Your task to perform on an android device: empty trash in google photos Image 0: 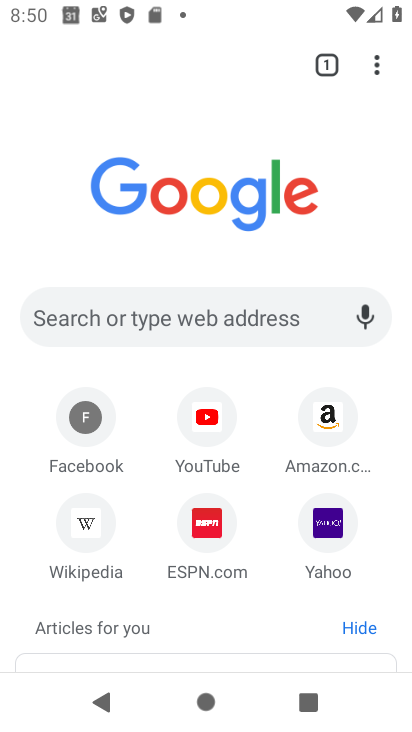
Step 0: press home button
Your task to perform on an android device: empty trash in google photos Image 1: 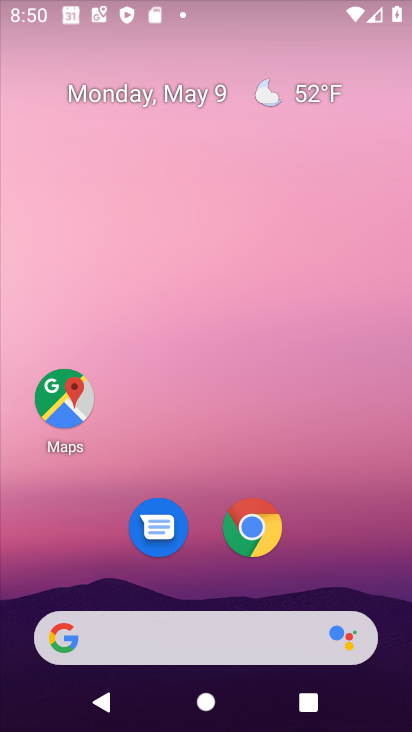
Step 1: drag from (215, 567) to (165, 48)
Your task to perform on an android device: empty trash in google photos Image 2: 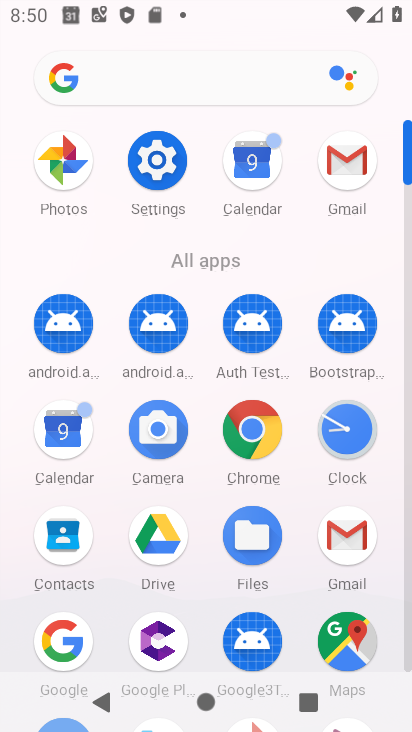
Step 2: click (58, 152)
Your task to perform on an android device: empty trash in google photos Image 3: 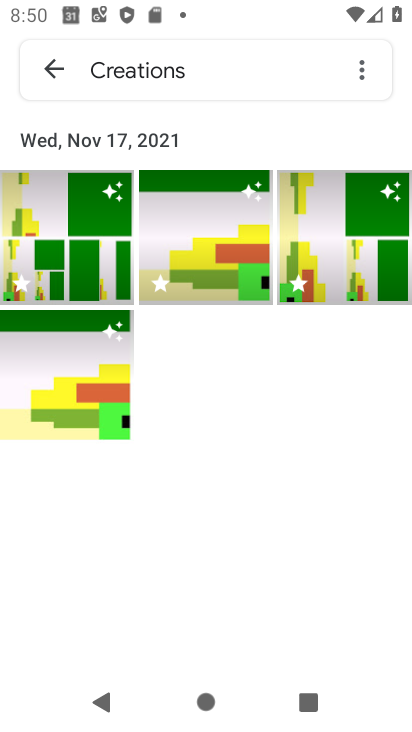
Step 3: press back button
Your task to perform on an android device: empty trash in google photos Image 4: 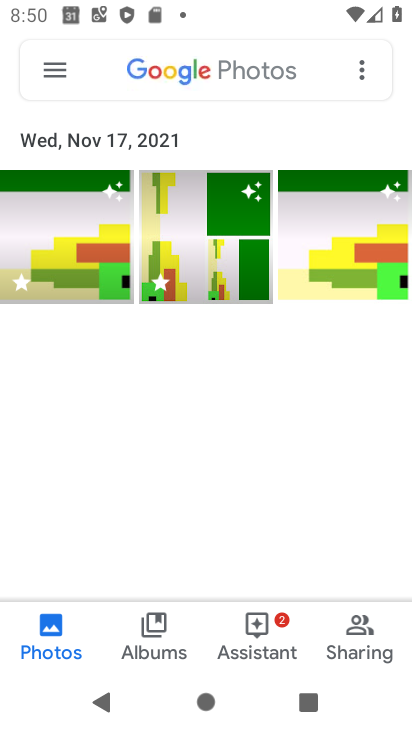
Step 4: click (55, 70)
Your task to perform on an android device: empty trash in google photos Image 5: 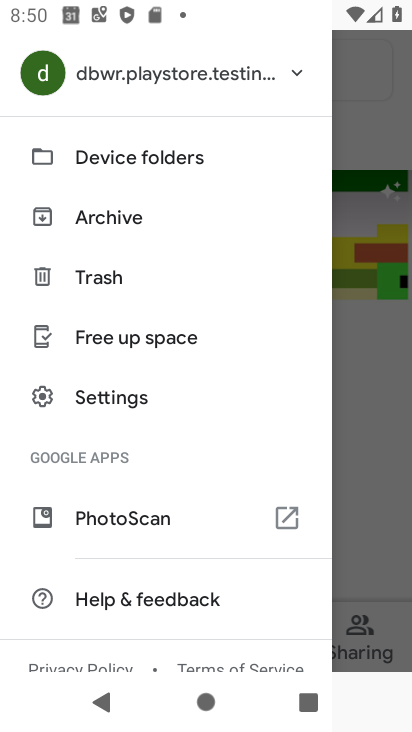
Step 5: click (110, 258)
Your task to perform on an android device: empty trash in google photos Image 6: 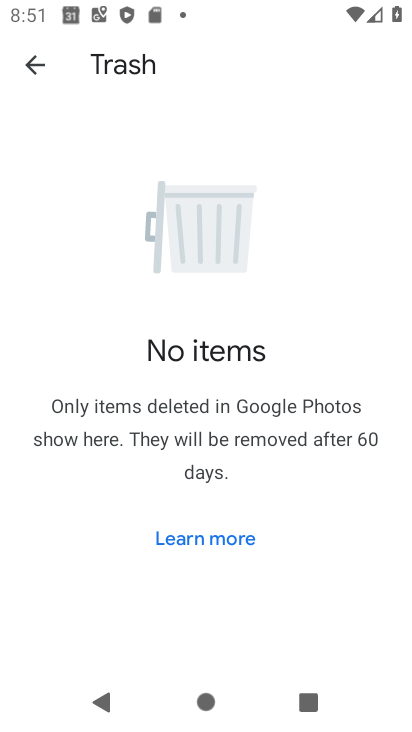
Step 6: task complete